Your task to perform on an android device: turn off airplane mode Image 0: 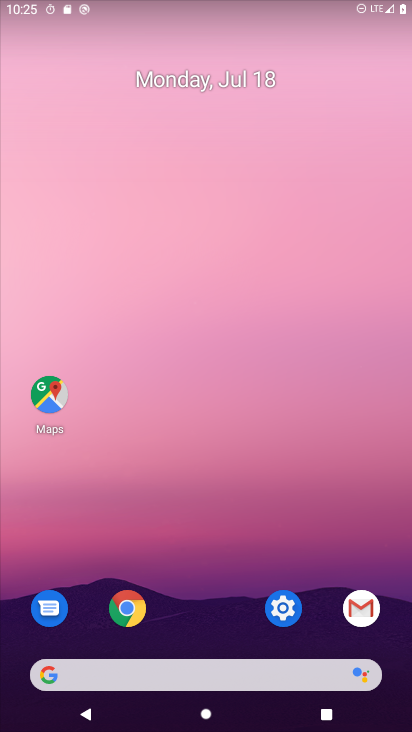
Step 0: press home button
Your task to perform on an android device: turn off airplane mode Image 1: 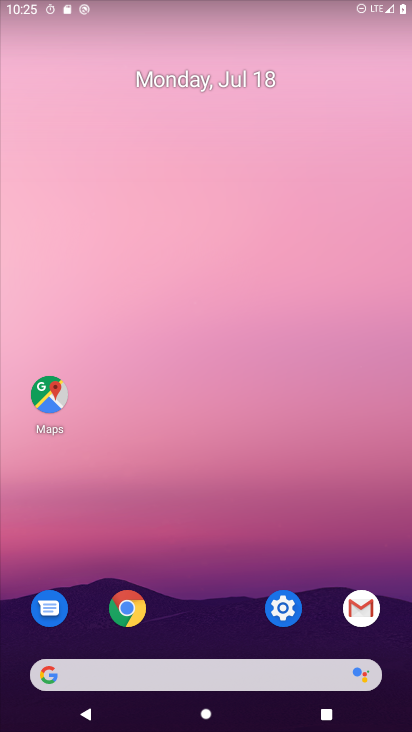
Step 1: click (301, 597)
Your task to perform on an android device: turn off airplane mode Image 2: 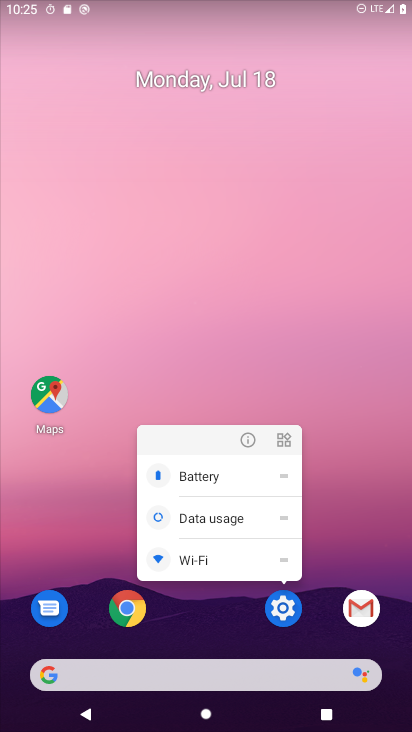
Step 2: click (284, 613)
Your task to perform on an android device: turn off airplane mode Image 3: 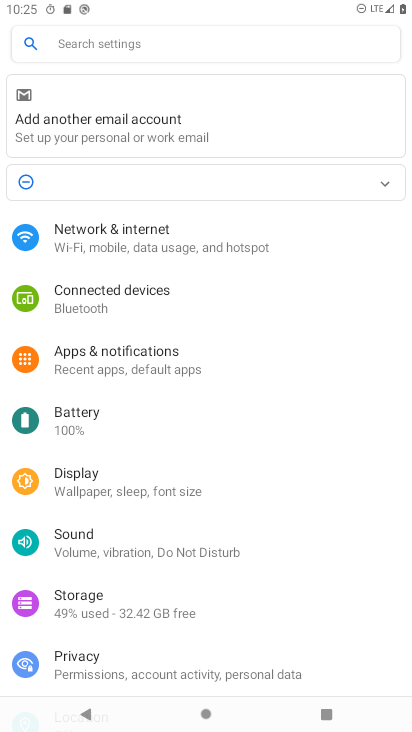
Step 3: click (132, 244)
Your task to perform on an android device: turn off airplane mode Image 4: 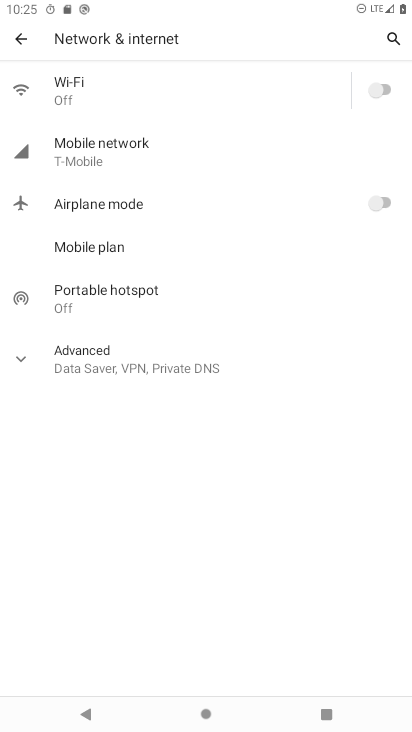
Step 4: click (146, 206)
Your task to perform on an android device: turn off airplane mode Image 5: 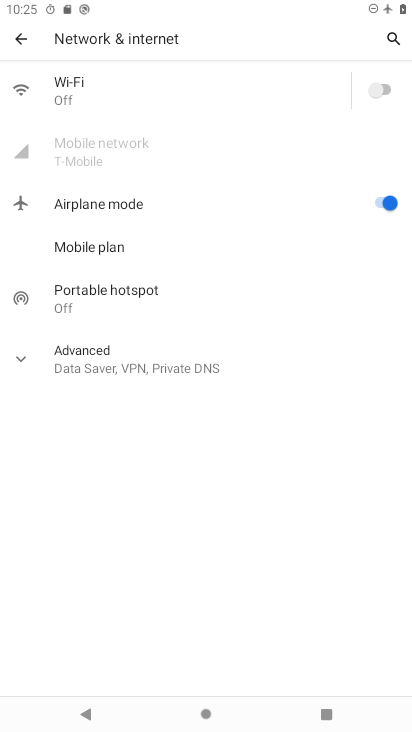
Step 5: click (385, 209)
Your task to perform on an android device: turn off airplane mode Image 6: 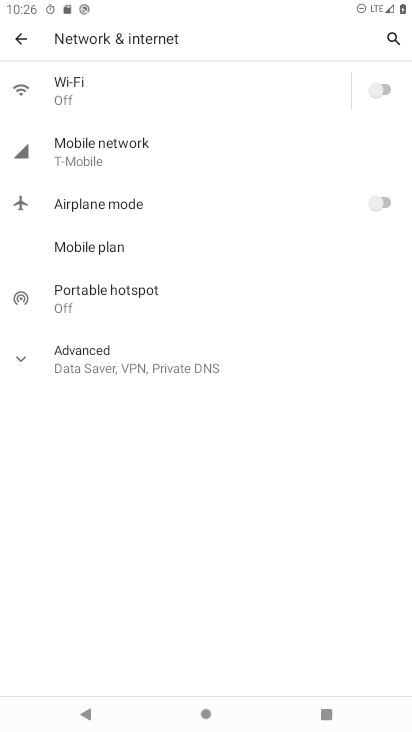
Step 6: task complete